Your task to perform on an android device: Open Yahoo.com Image 0: 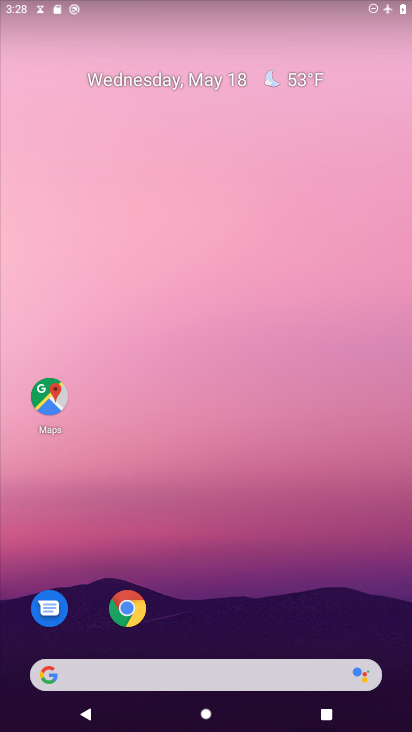
Step 0: drag from (307, 5) to (339, 323)
Your task to perform on an android device: Open Yahoo.com Image 1: 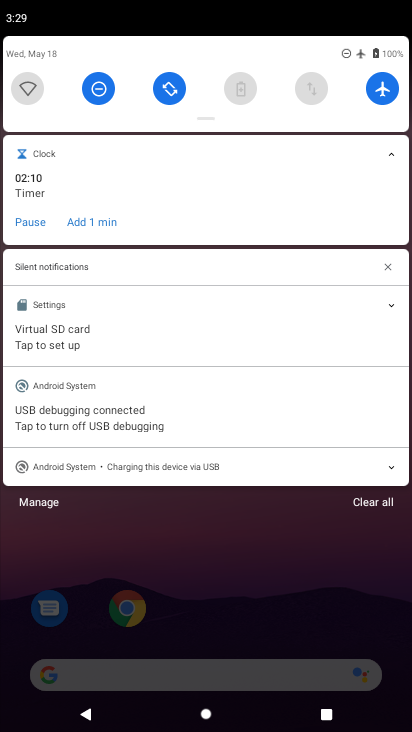
Step 1: click (388, 87)
Your task to perform on an android device: Open Yahoo.com Image 2: 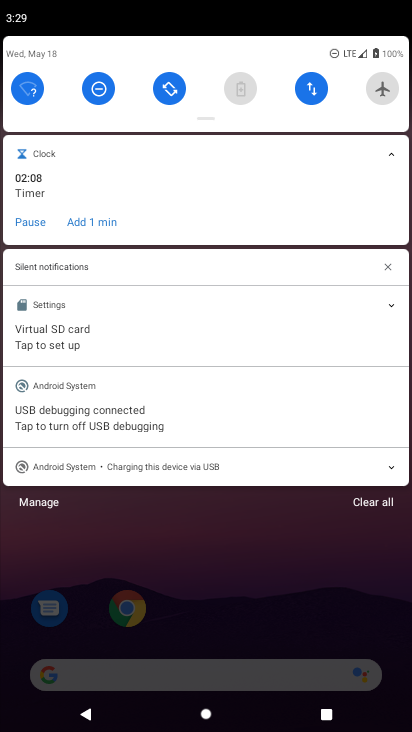
Step 2: drag from (291, 487) to (331, 276)
Your task to perform on an android device: Open Yahoo.com Image 3: 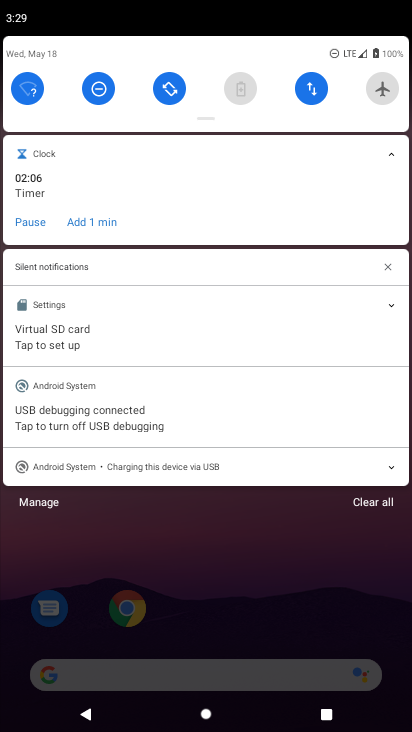
Step 3: drag from (323, 550) to (342, 8)
Your task to perform on an android device: Open Yahoo.com Image 4: 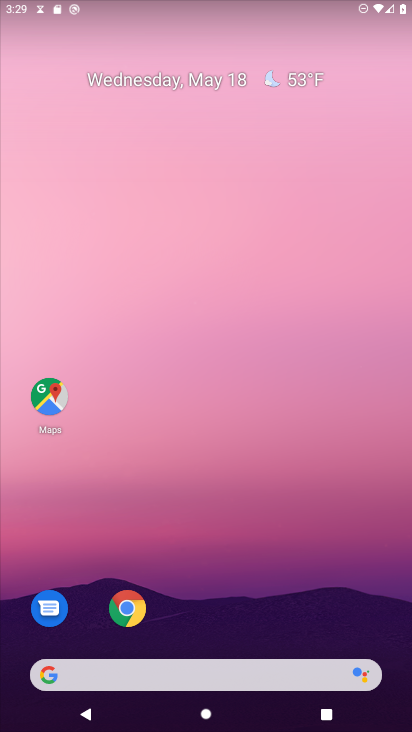
Step 4: click (129, 609)
Your task to perform on an android device: Open Yahoo.com Image 5: 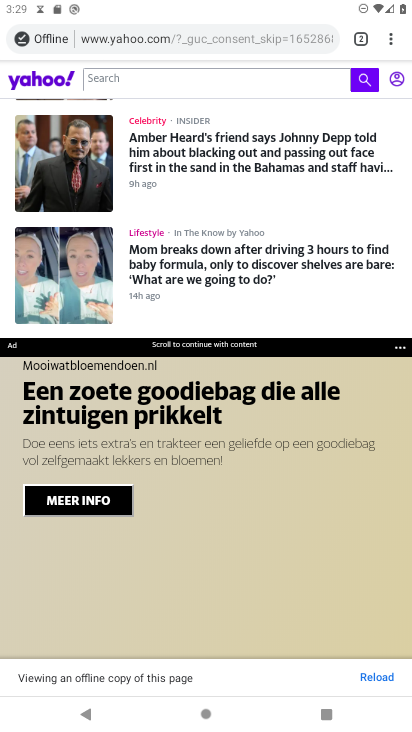
Step 5: task complete